Your task to perform on an android device: Open Amazon Image 0: 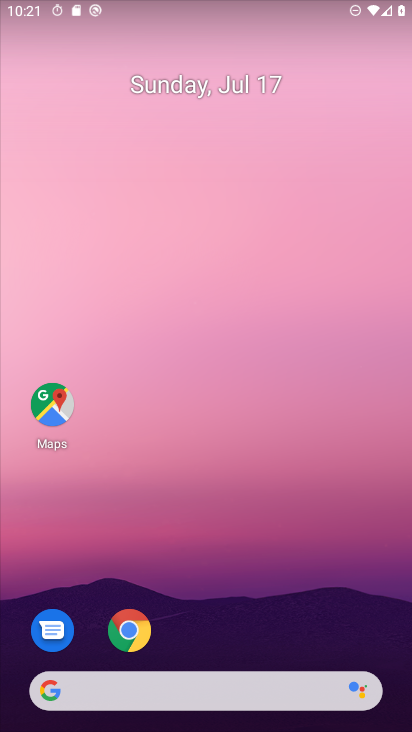
Step 0: click (136, 628)
Your task to perform on an android device: Open Amazon Image 1: 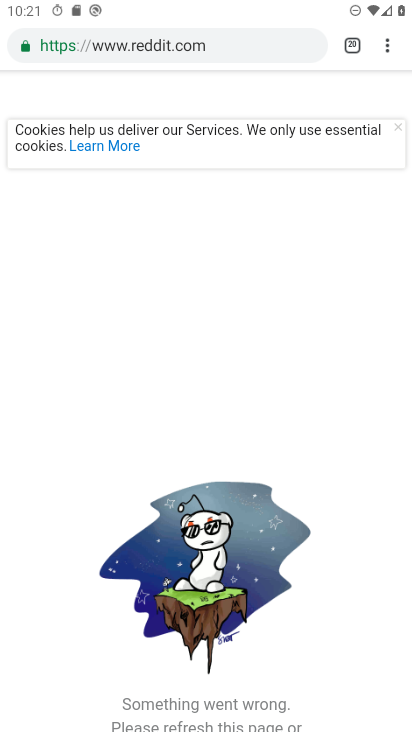
Step 1: click (392, 37)
Your task to perform on an android device: Open Amazon Image 2: 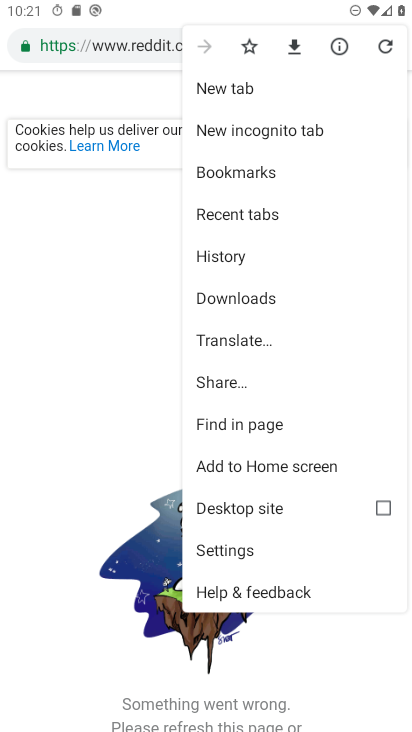
Step 2: click (263, 95)
Your task to perform on an android device: Open Amazon Image 3: 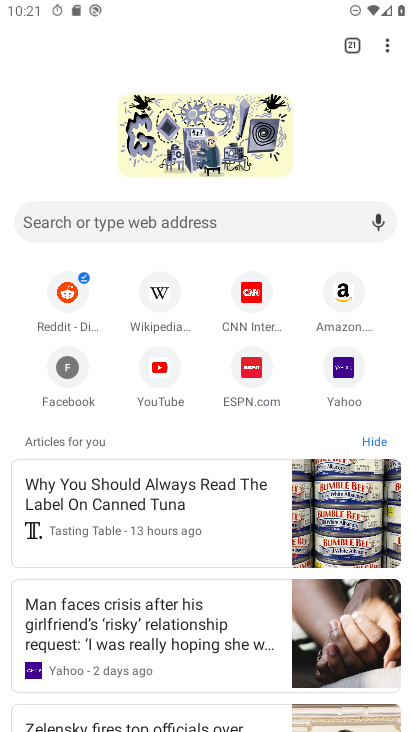
Step 3: click (335, 304)
Your task to perform on an android device: Open Amazon Image 4: 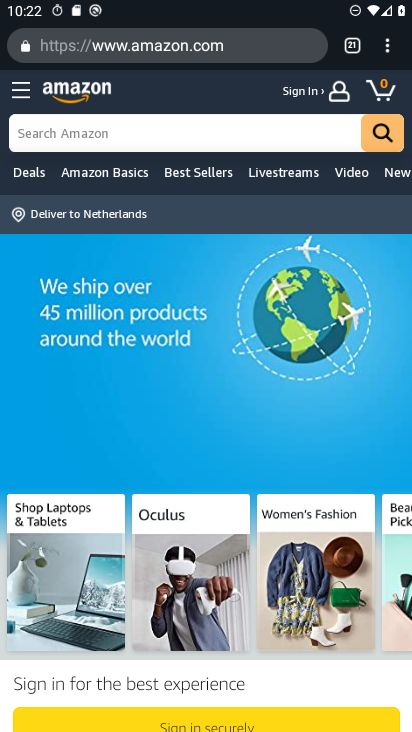
Step 4: task complete